Your task to perform on an android device: refresh tabs in the chrome app Image 0: 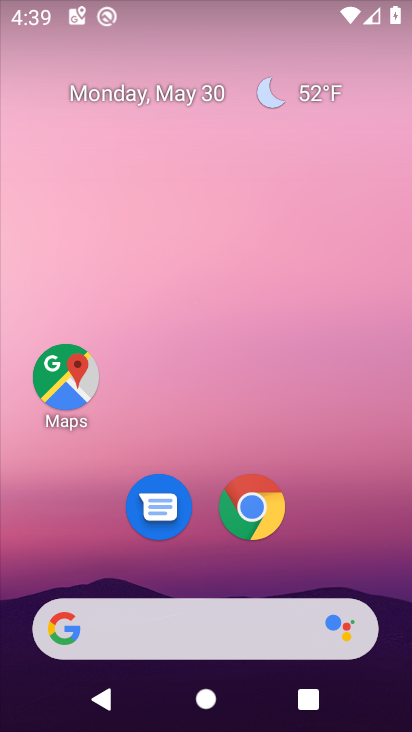
Step 0: drag from (380, 574) to (275, 1)
Your task to perform on an android device: refresh tabs in the chrome app Image 1: 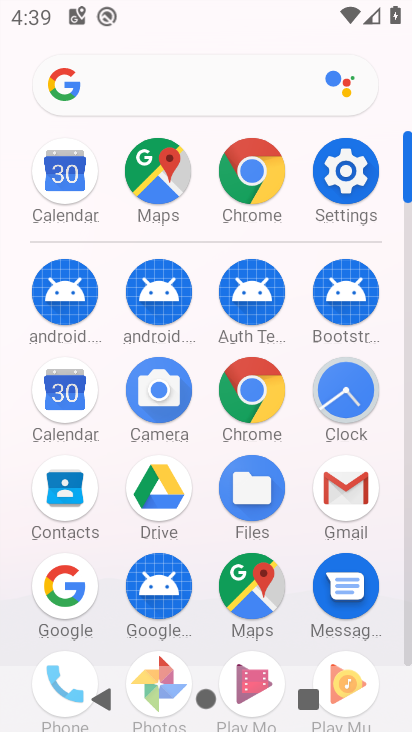
Step 1: click (255, 177)
Your task to perform on an android device: refresh tabs in the chrome app Image 2: 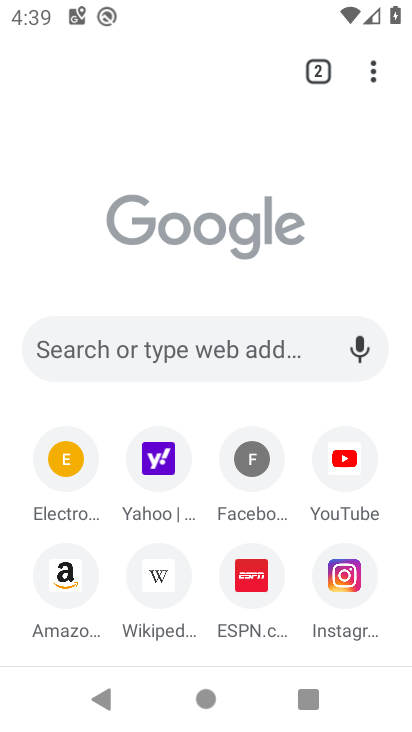
Step 2: click (374, 70)
Your task to perform on an android device: refresh tabs in the chrome app Image 3: 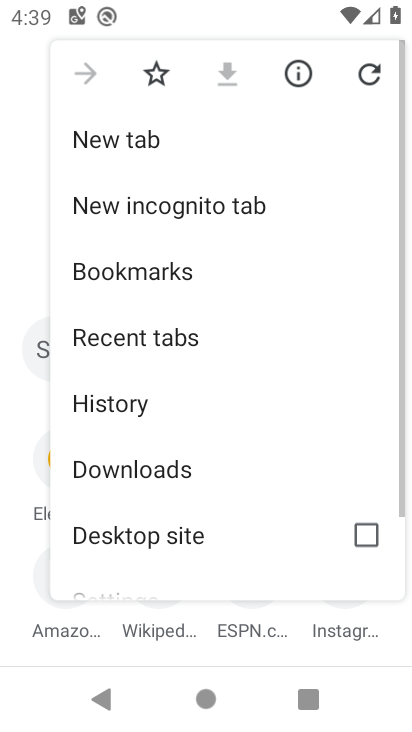
Step 3: click (374, 70)
Your task to perform on an android device: refresh tabs in the chrome app Image 4: 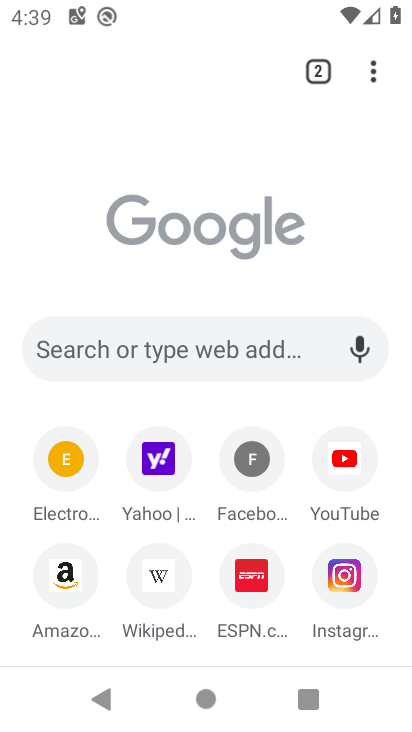
Step 4: task complete